Your task to perform on an android device: check android version Image 0: 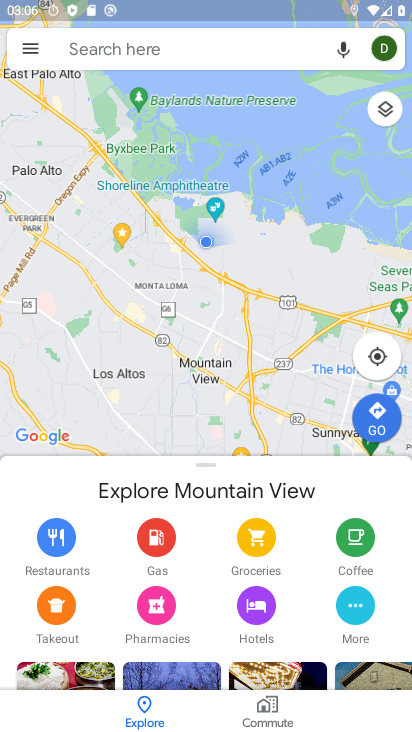
Step 0: press home button
Your task to perform on an android device: check android version Image 1: 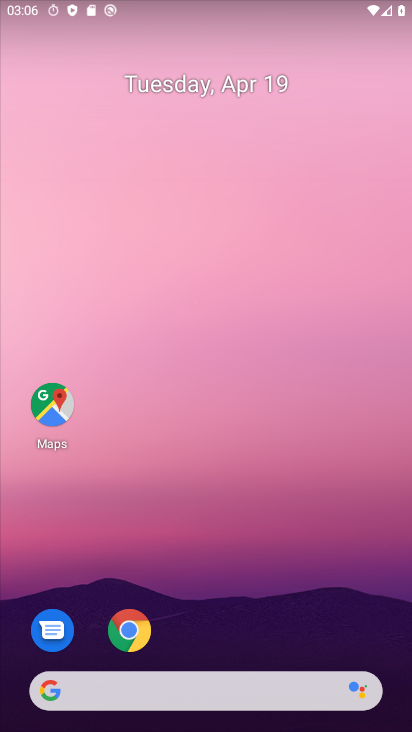
Step 1: drag from (223, 580) to (261, 89)
Your task to perform on an android device: check android version Image 2: 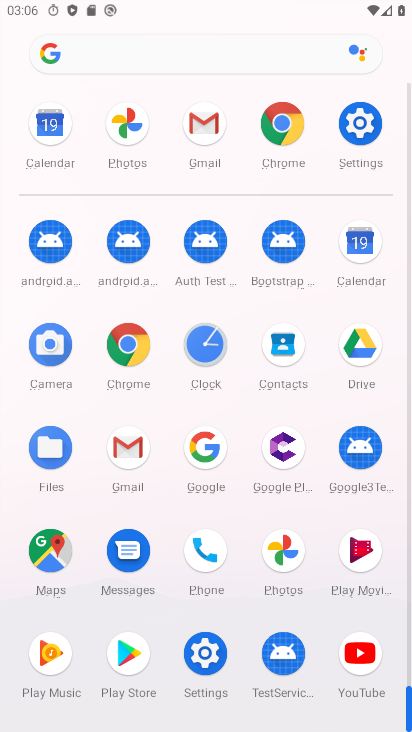
Step 2: click (359, 135)
Your task to perform on an android device: check android version Image 3: 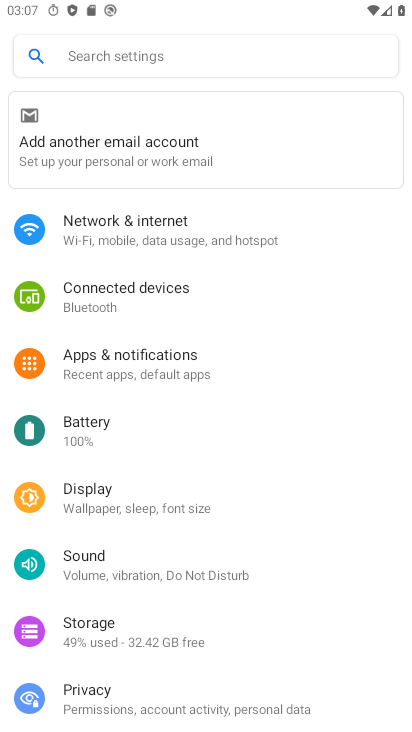
Step 3: drag from (302, 637) to (302, 106)
Your task to perform on an android device: check android version Image 4: 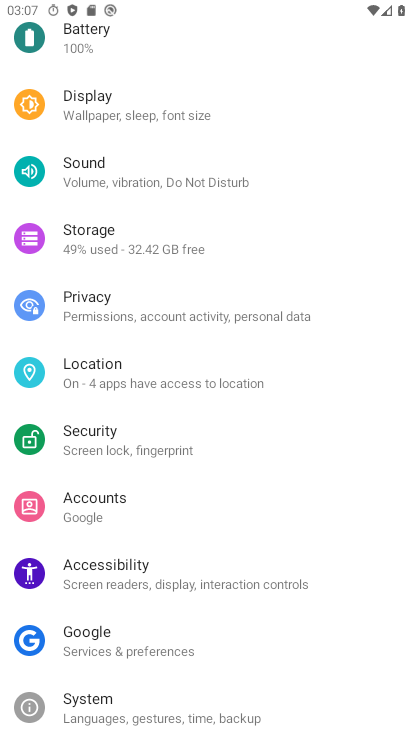
Step 4: drag from (282, 655) to (284, 180)
Your task to perform on an android device: check android version Image 5: 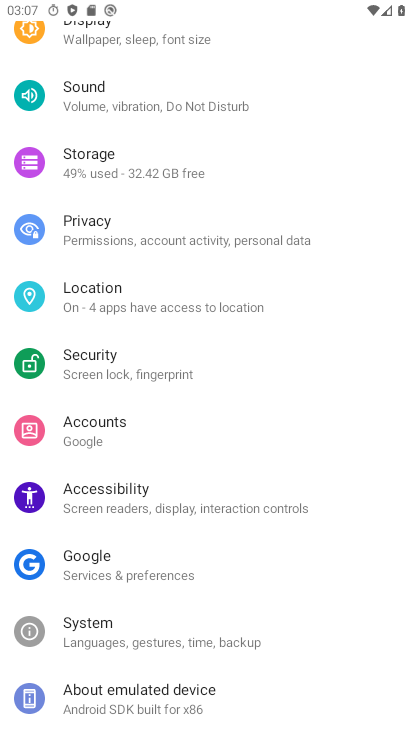
Step 5: click (175, 703)
Your task to perform on an android device: check android version Image 6: 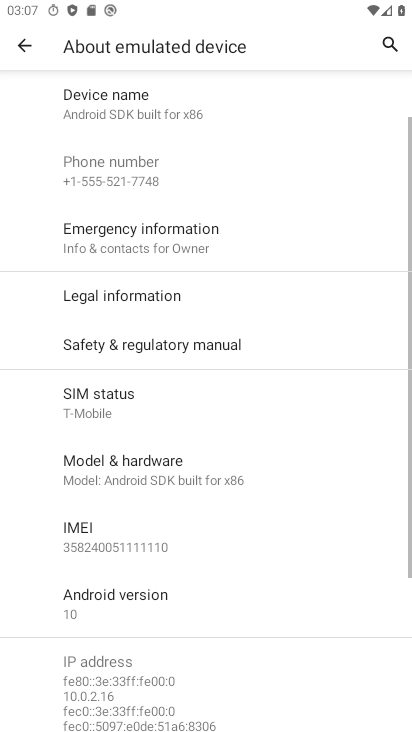
Step 6: drag from (226, 538) to (232, 180)
Your task to perform on an android device: check android version Image 7: 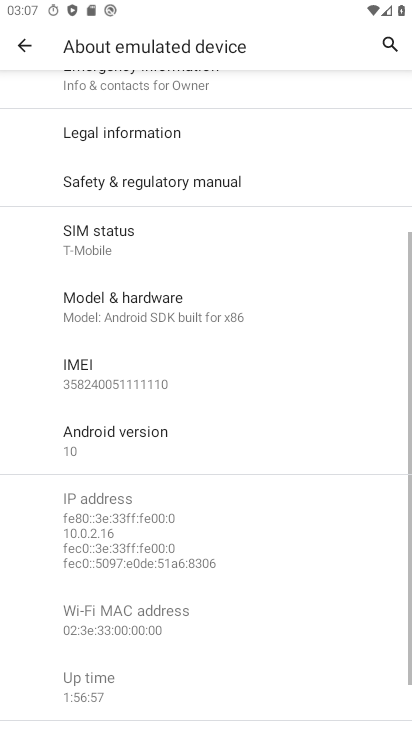
Step 7: drag from (246, 556) to (272, 165)
Your task to perform on an android device: check android version Image 8: 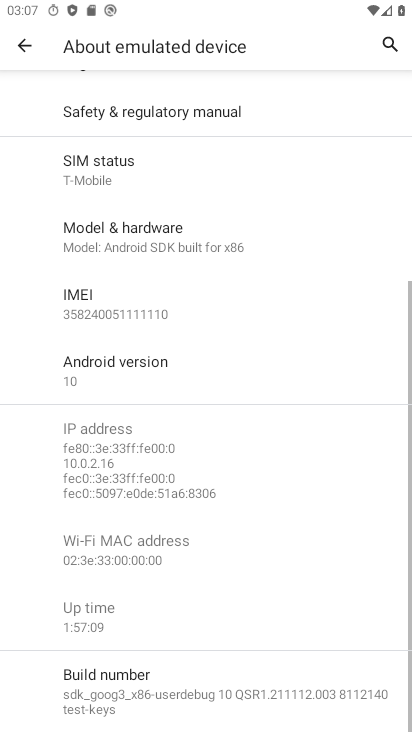
Step 8: click (168, 362)
Your task to perform on an android device: check android version Image 9: 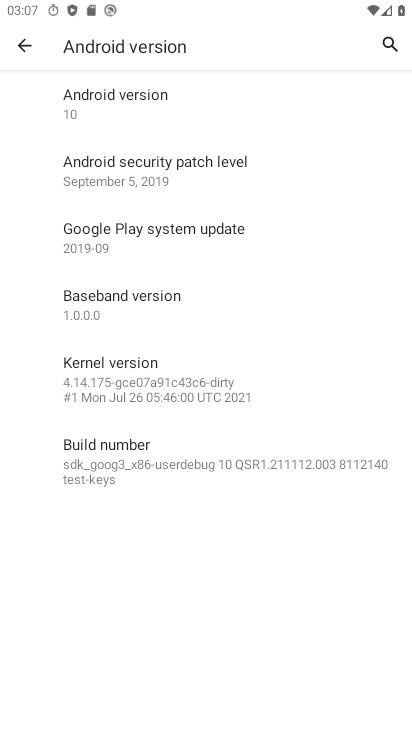
Step 9: task complete